Your task to perform on an android device: Open ESPN.com Image 0: 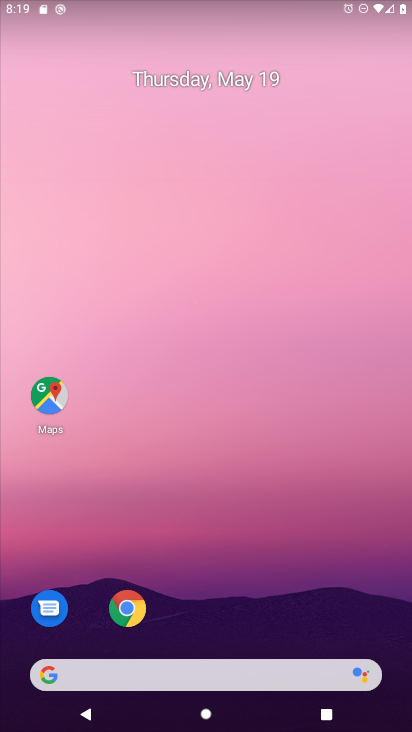
Step 0: click (376, 626)
Your task to perform on an android device: Open ESPN.com Image 1: 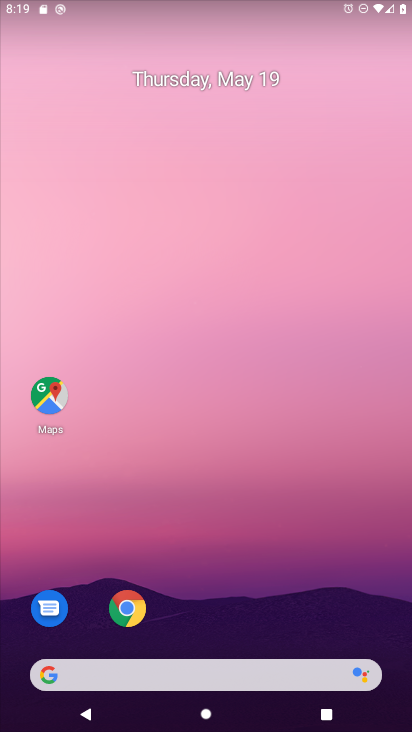
Step 1: click (376, 626)
Your task to perform on an android device: Open ESPN.com Image 2: 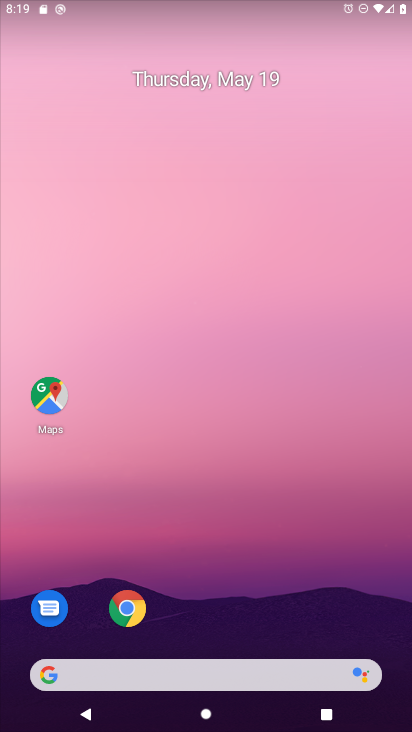
Step 2: click (121, 607)
Your task to perform on an android device: Open ESPN.com Image 3: 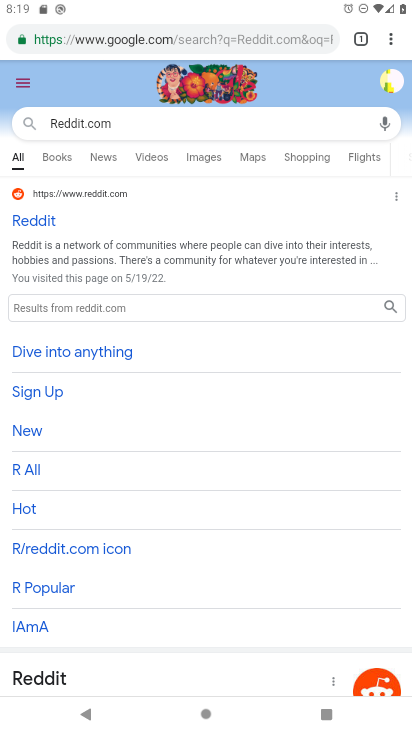
Step 3: click (333, 34)
Your task to perform on an android device: Open ESPN.com Image 4: 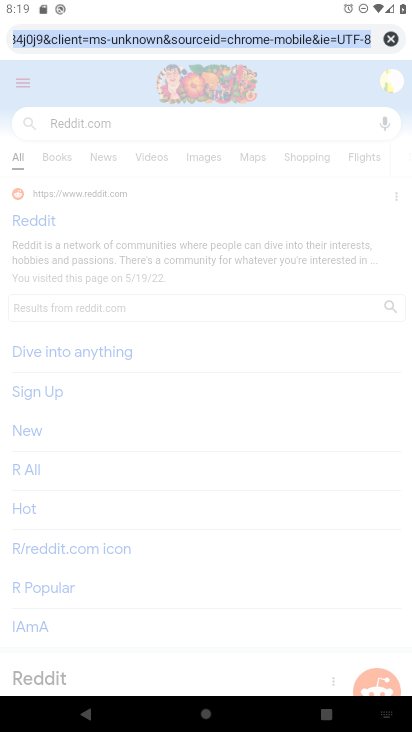
Step 4: click (388, 34)
Your task to perform on an android device: Open ESPN.com Image 5: 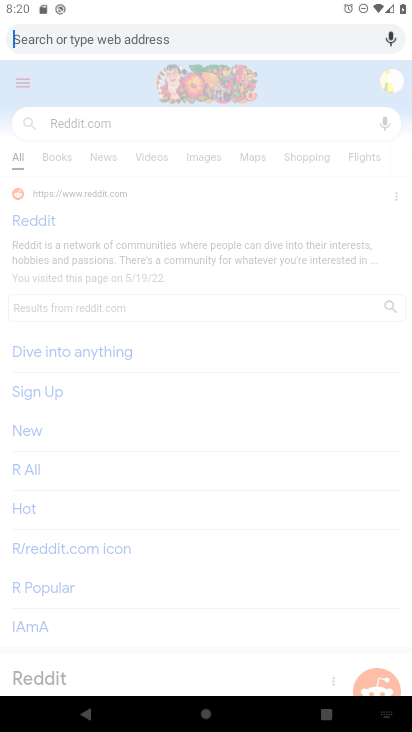
Step 5: type "ESPN.com"
Your task to perform on an android device: Open ESPN.com Image 6: 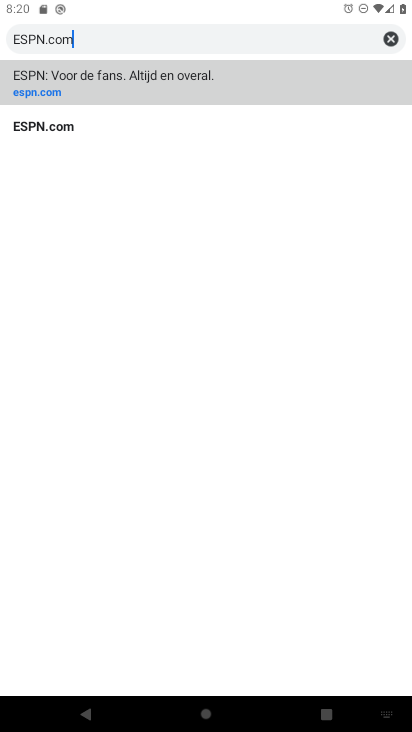
Step 6: click (40, 120)
Your task to perform on an android device: Open ESPN.com Image 7: 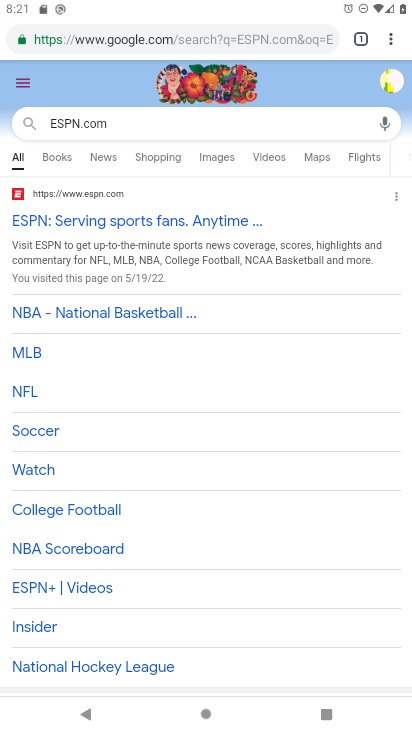
Step 7: task complete